Your task to perform on an android device: Check the news Image 0: 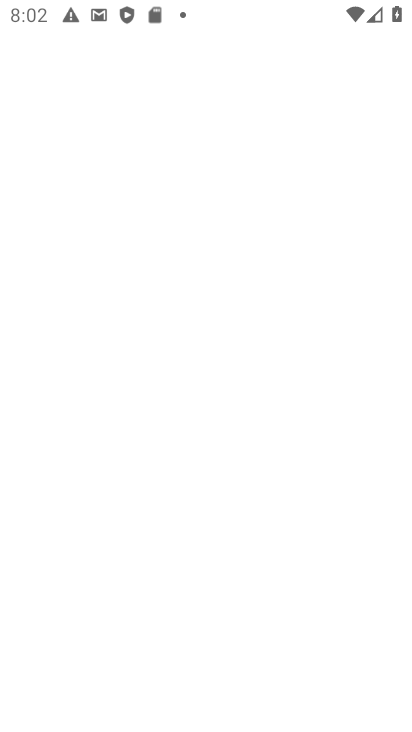
Step 0: drag from (69, 598) to (183, 135)
Your task to perform on an android device: Check the news Image 1: 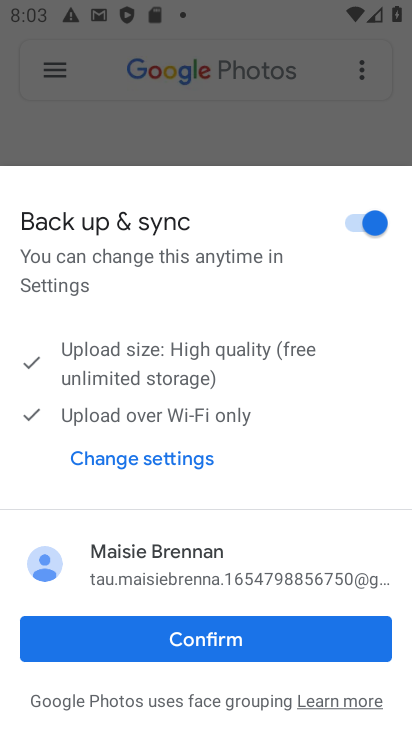
Step 1: press home button
Your task to perform on an android device: Check the news Image 2: 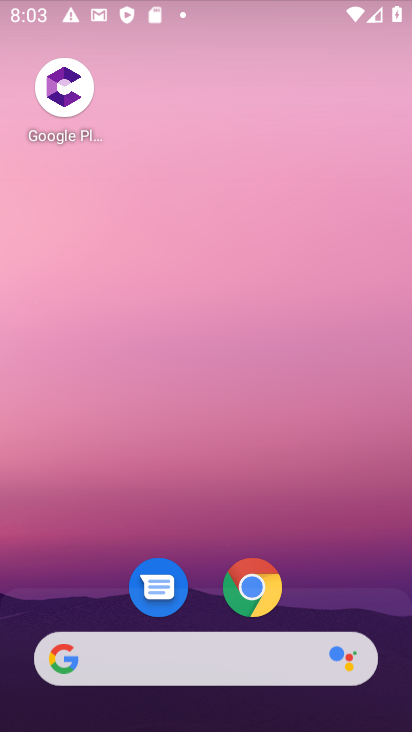
Step 2: drag from (147, 588) to (152, 121)
Your task to perform on an android device: Check the news Image 3: 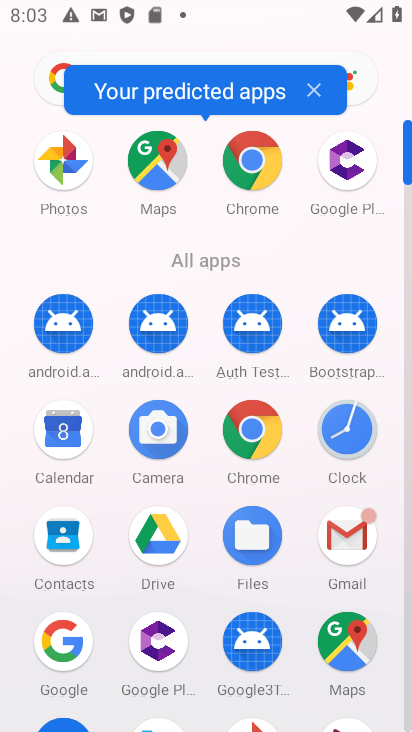
Step 3: click (77, 651)
Your task to perform on an android device: Check the news Image 4: 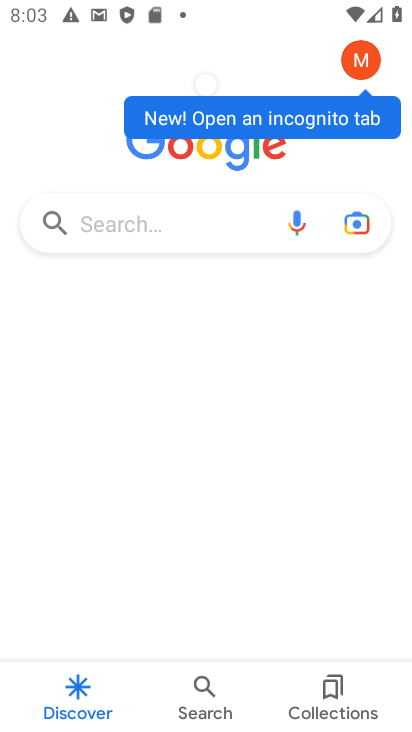
Step 4: click (155, 228)
Your task to perform on an android device: Check the news Image 5: 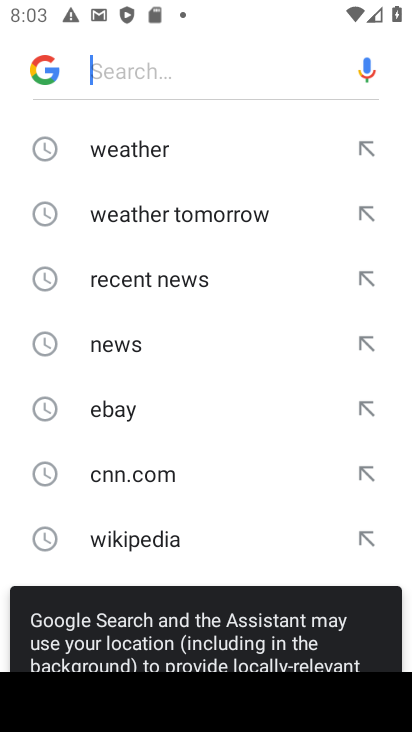
Step 5: click (92, 352)
Your task to perform on an android device: Check the news Image 6: 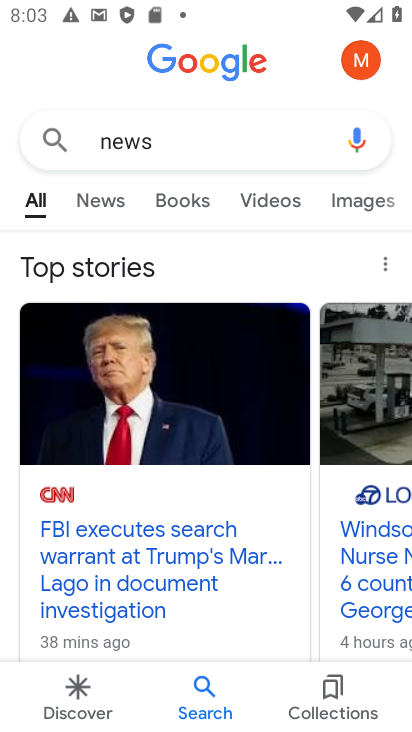
Step 6: task complete